Your task to perform on an android device: Open internet settings Image 0: 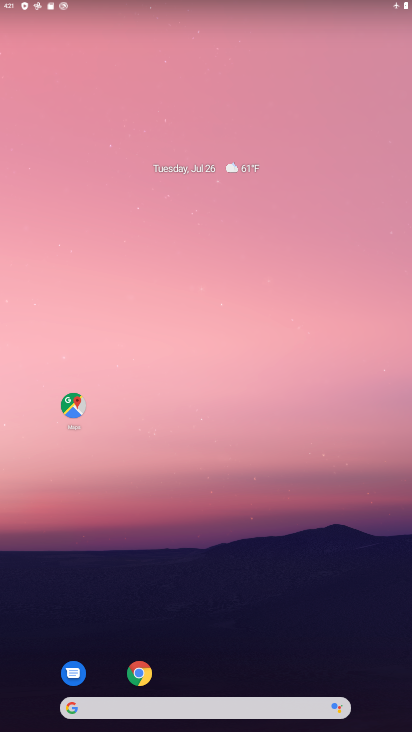
Step 0: drag from (305, 644) to (263, 6)
Your task to perform on an android device: Open internet settings Image 1: 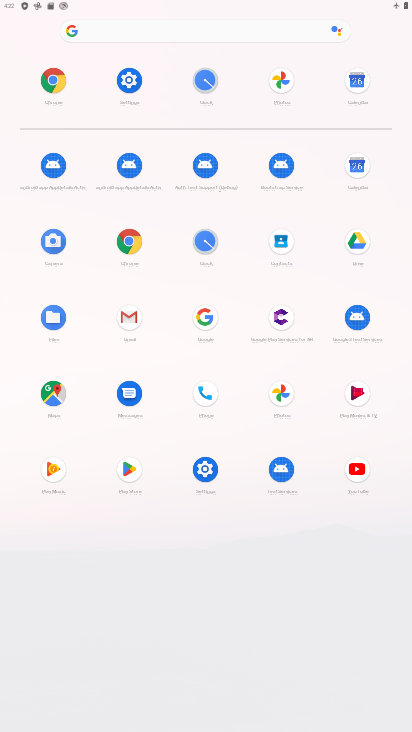
Step 1: click (120, 79)
Your task to perform on an android device: Open internet settings Image 2: 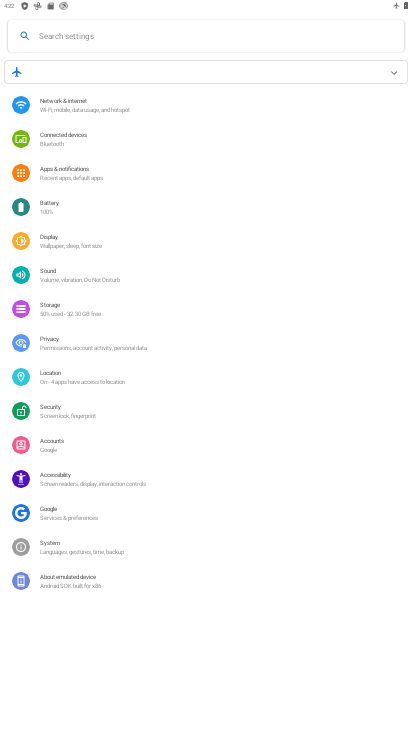
Step 2: click (157, 104)
Your task to perform on an android device: Open internet settings Image 3: 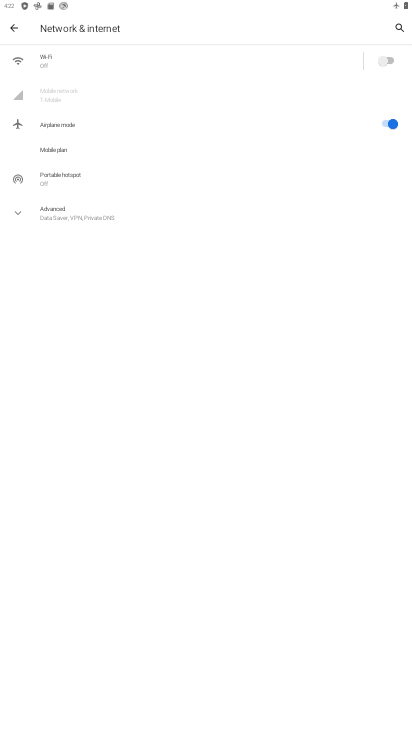
Step 3: click (71, 209)
Your task to perform on an android device: Open internet settings Image 4: 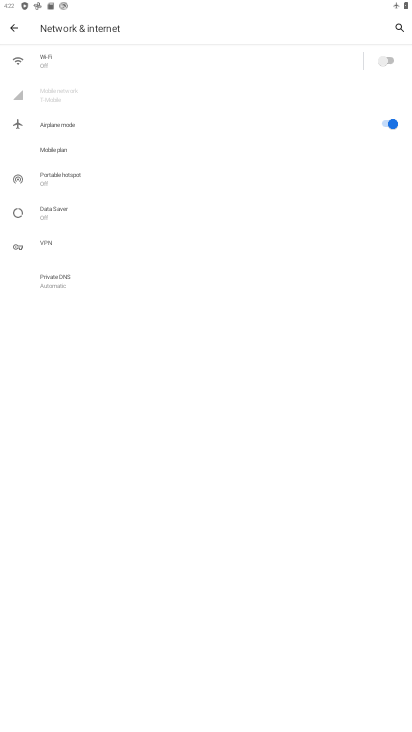
Step 4: task complete